Your task to perform on an android device: Go to network settings Image 0: 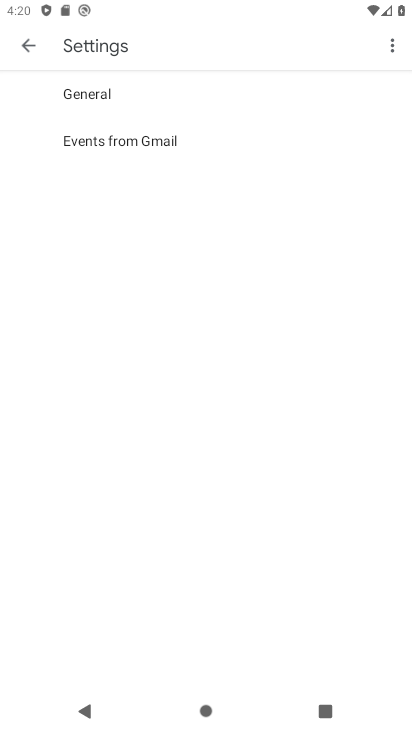
Step 0: drag from (235, 7) to (247, 543)
Your task to perform on an android device: Go to network settings Image 1: 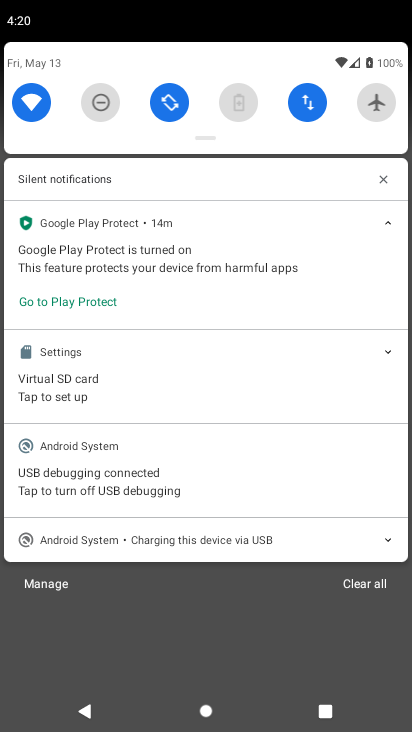
Step 1: click (312, 106)
Your task to perform on an android device: Go to network settings Image 2: 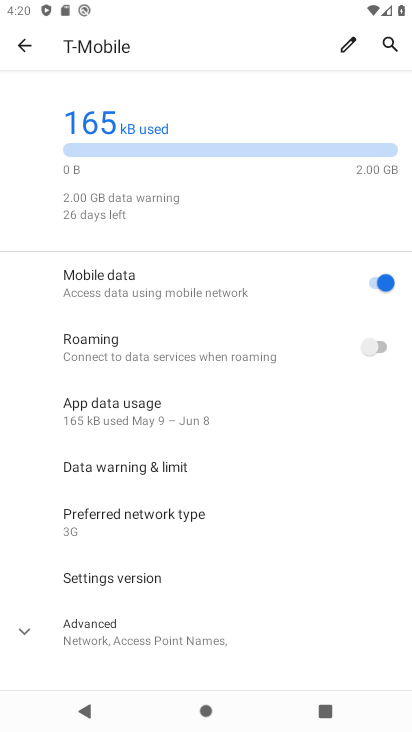
Step 2: task complete